Your task to perform on an android device: See recent photos Image 0: 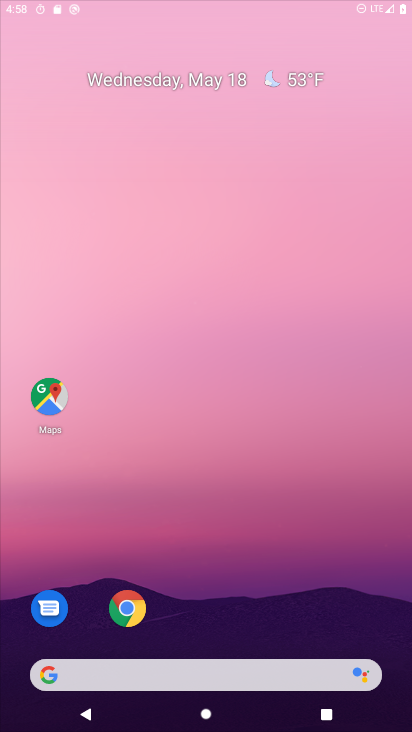
Step 0: drag from (296, 697) to (259, 39)
Your task to perform on an android device: See recent photos Image 1: 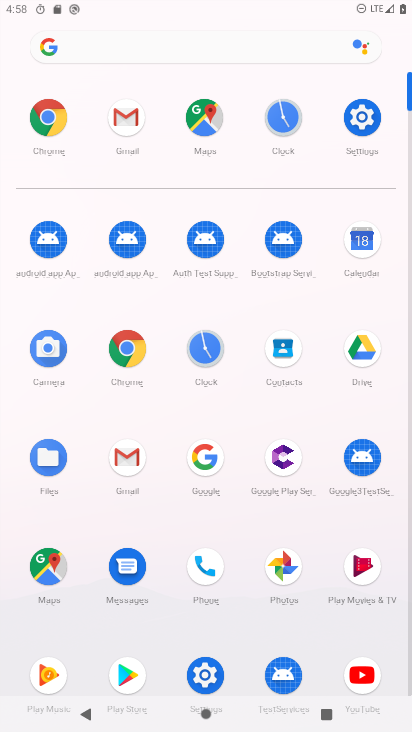
Step 1: click (317, 563)
Your task to perform on an android device: See recent photos Image 2: 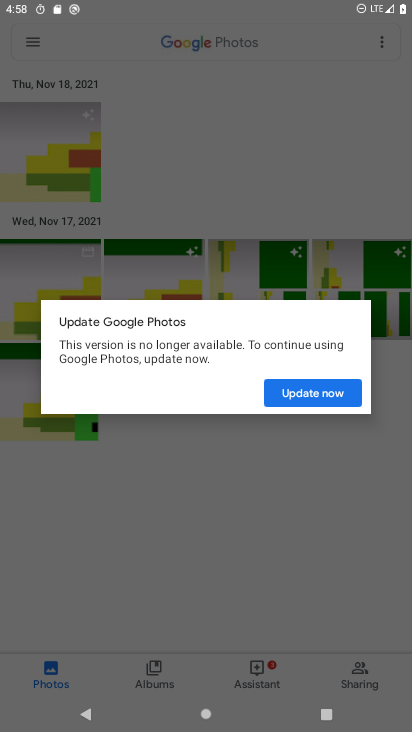
Step 2: click (308, 399)
Your task to perform on an android device: See recent photos Image 3: 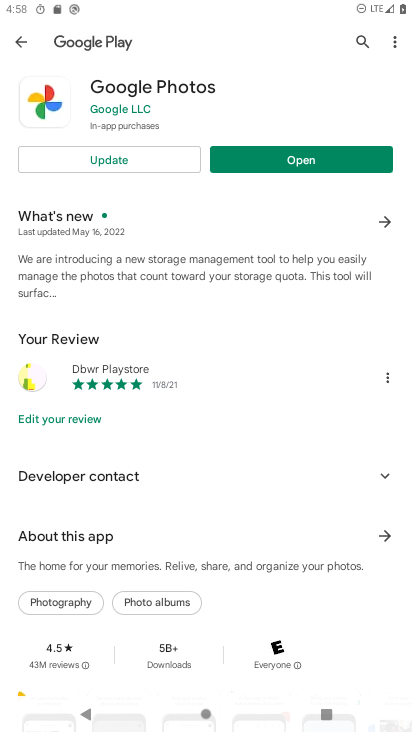
Step 3: click (142, 167)
Your task to perform on an android device: See recent photos Image 4: 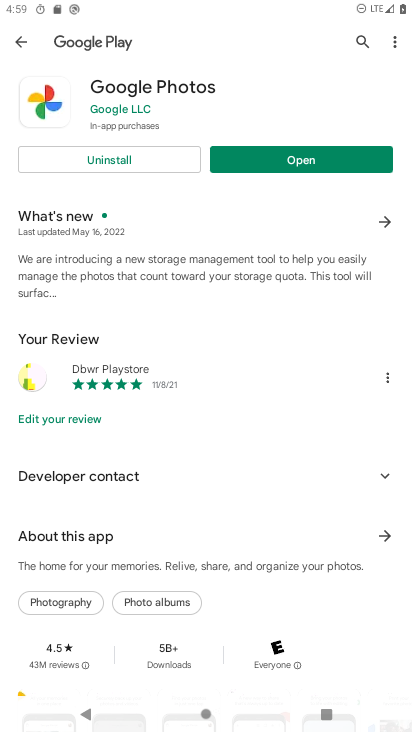
Step 4: click (271, 156)
Your task to perform on an android device: See recent photos Image 5: 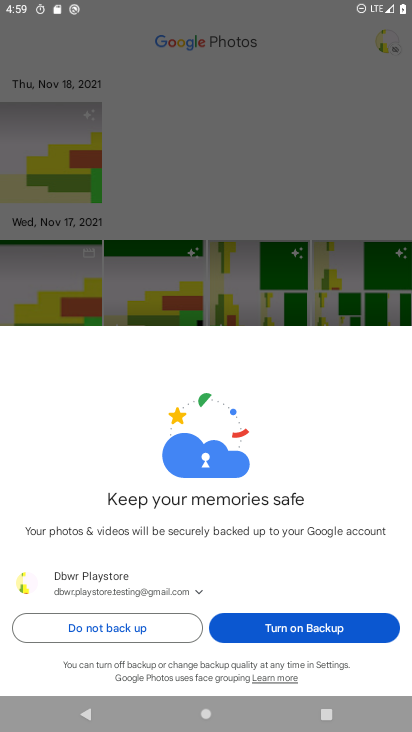
Step 5: click (253, 622)
Your task to perform on an android device: See recent photos Image 6: 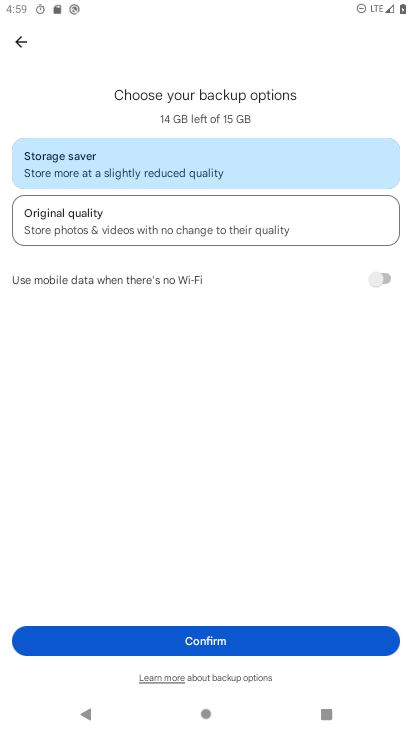
Step 6: click (239, 645)
Your task to perform on an android device: See recent photos Image 7: 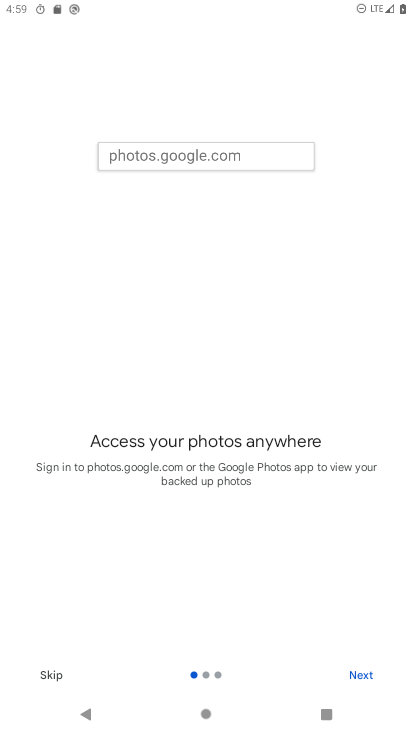
Step 7: click (352, 677)
Your task to perform on an android device: See recent photos Image 8: 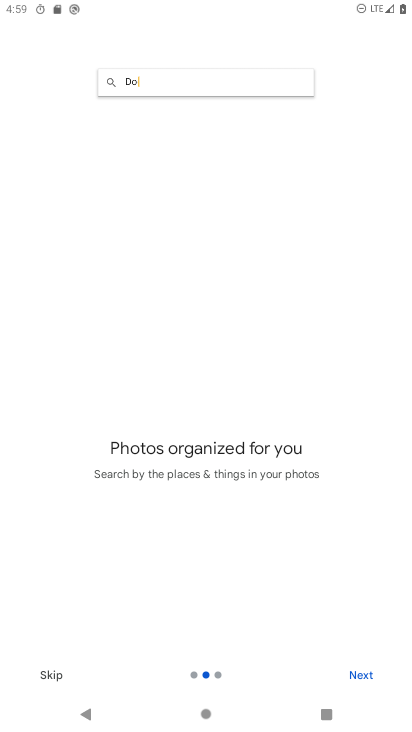
Step 8: click (352, 677)
Your task to perform on an android device: See recent photos Image 9: 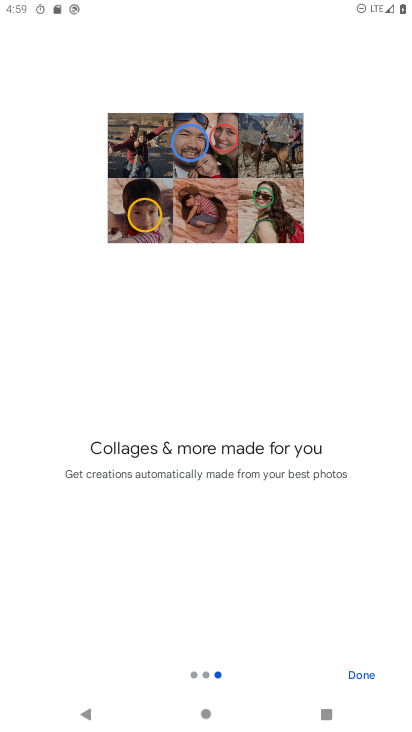
Step 9: click (352, 677)
Your task to perform on an android device: See recent photos Image 10: 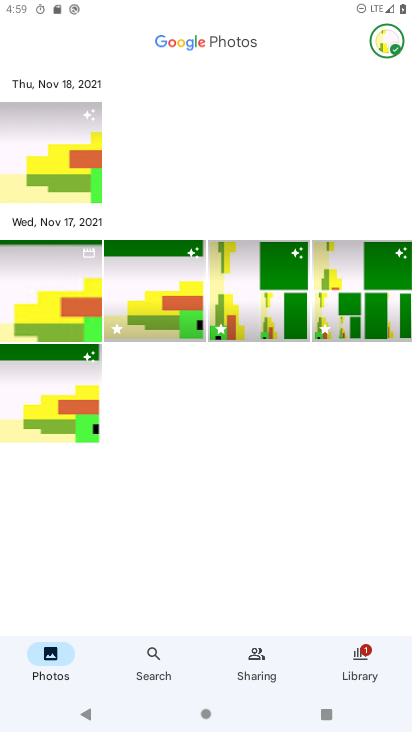
Step 10: task complete